Your task to perform on an android device: manage bookmarks in the chrome app Image 0: 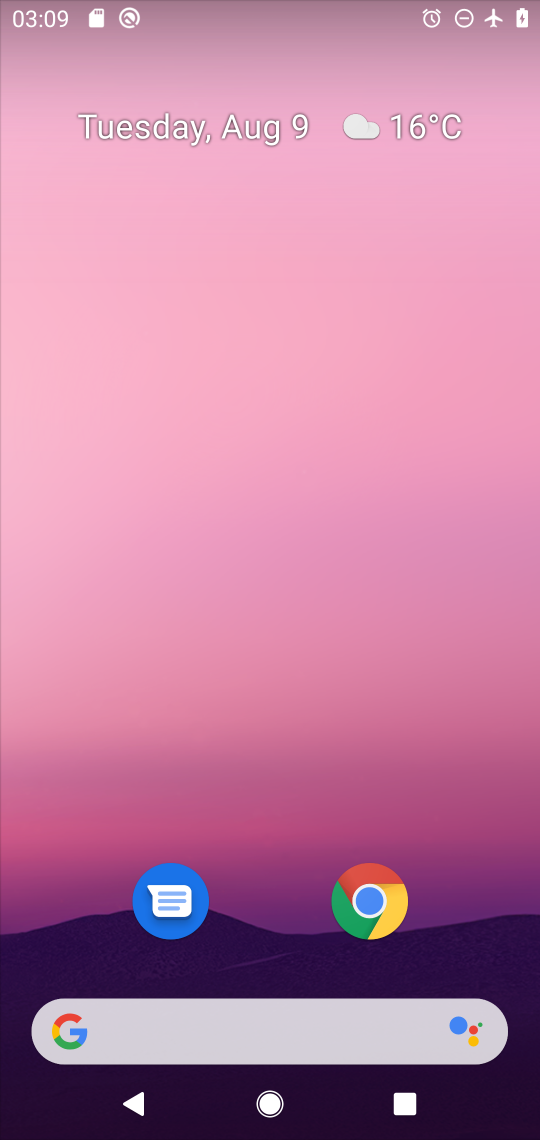
Step 0: click (369, 899)
Your task to perform on an android device: manage bookmarks in the chrome app Image 1: 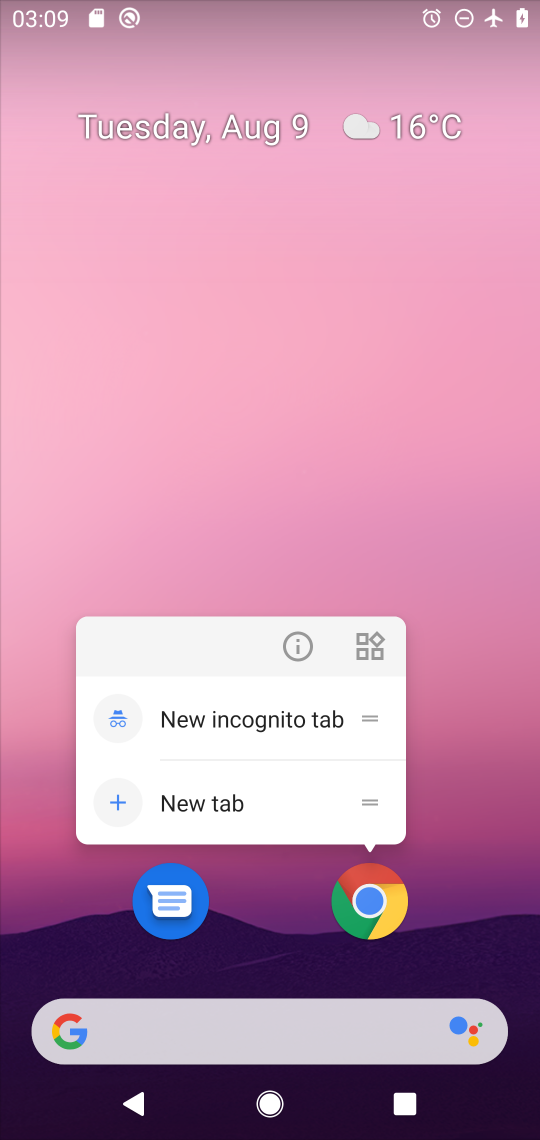
Step 1: click (369, 899)
Your task to perform on an android device: manage bookmarks in the chrome app Image 2: 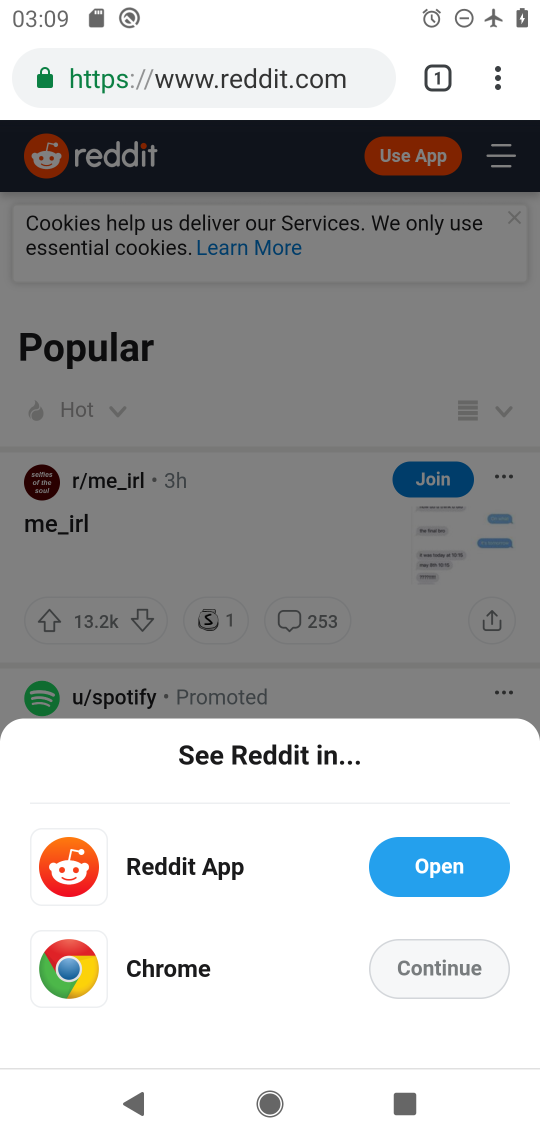
Step 2: click (492, 83)
Your task to perform on an android device: manage bookmarks in the chrome app Image 3: 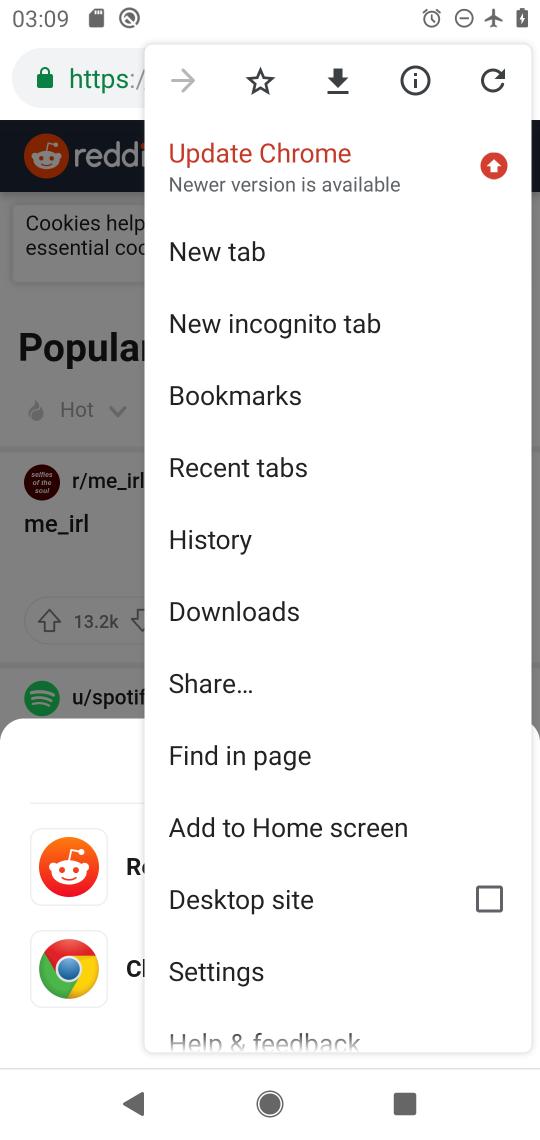
Step 3: click (233, 390)
Your task to perform on an android device: manage bookmarks in the chrome app Image 4: 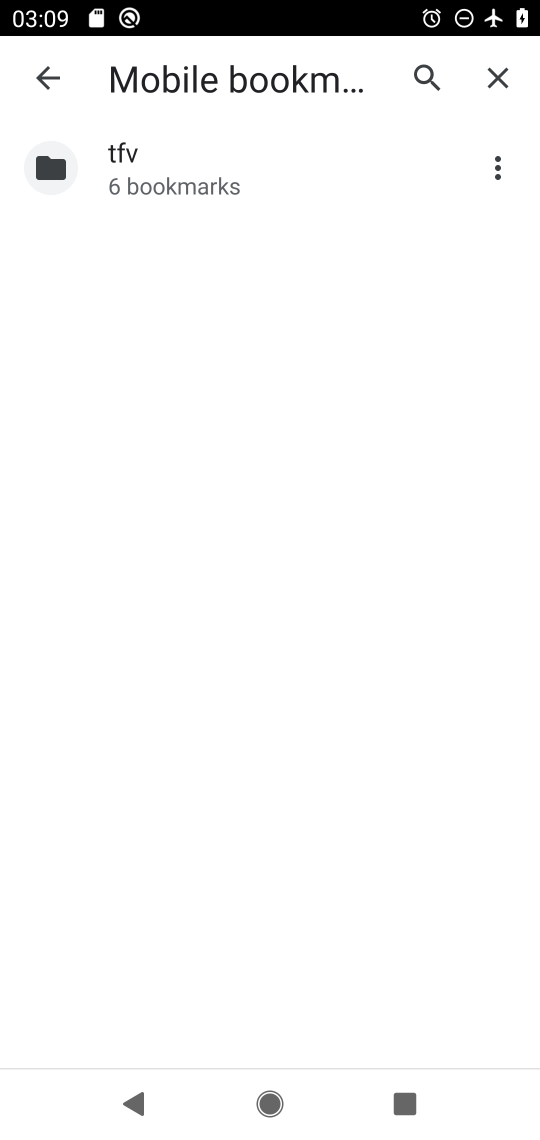
Step 4: click (145, 175)
Your task to perform on an android device: manage bookmarks in the chrome app Image 5: 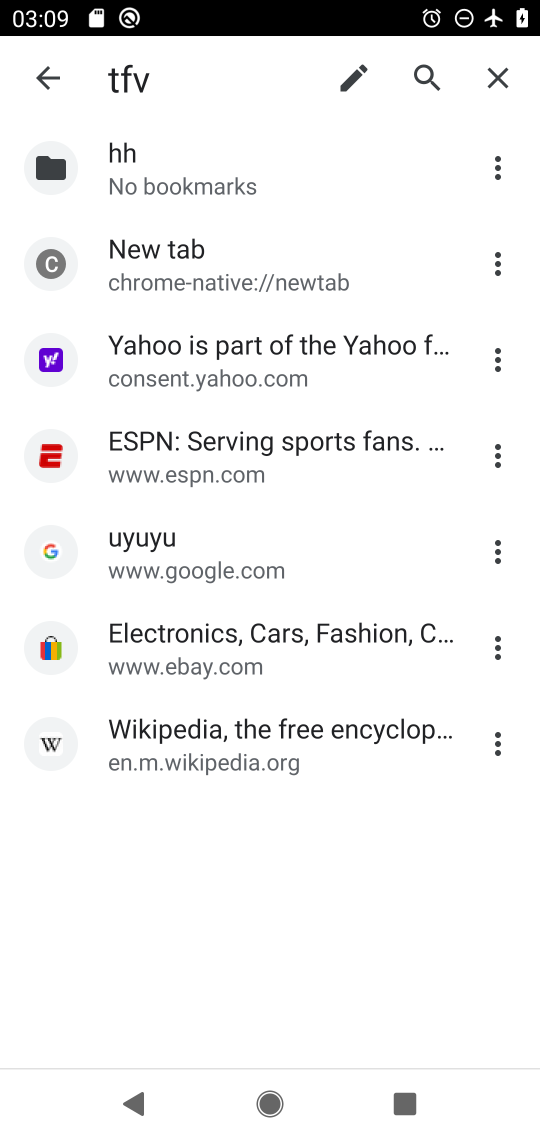
Step 5: click (164, 753)
Your task to perform on an android device: manage bookmarks in the chrome app Image 6: 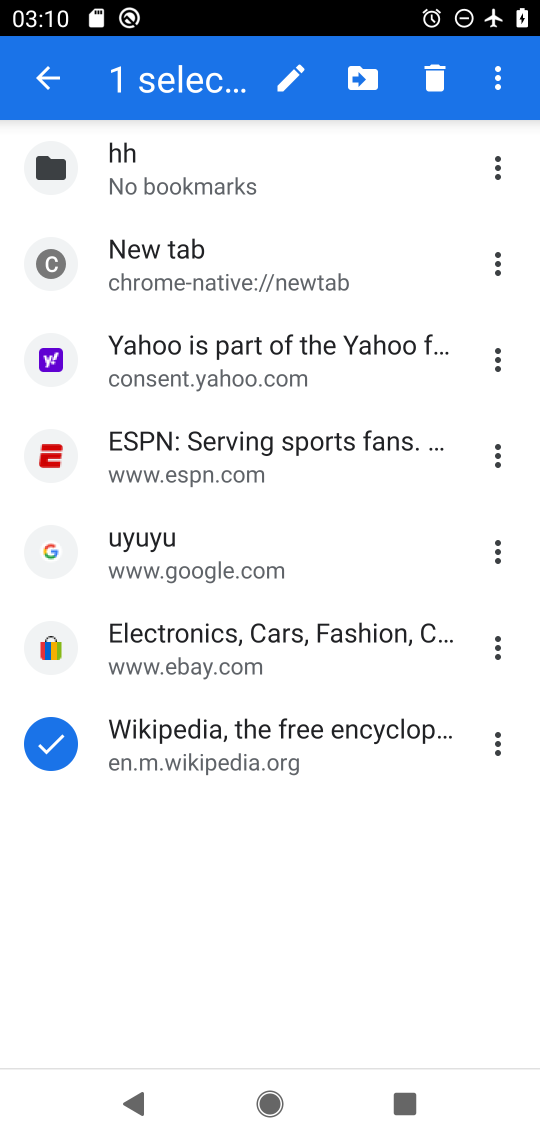
Step 6: click (365, 75)
Your task to perform on an android device: manage bookmarks in the chrome app Image 7: 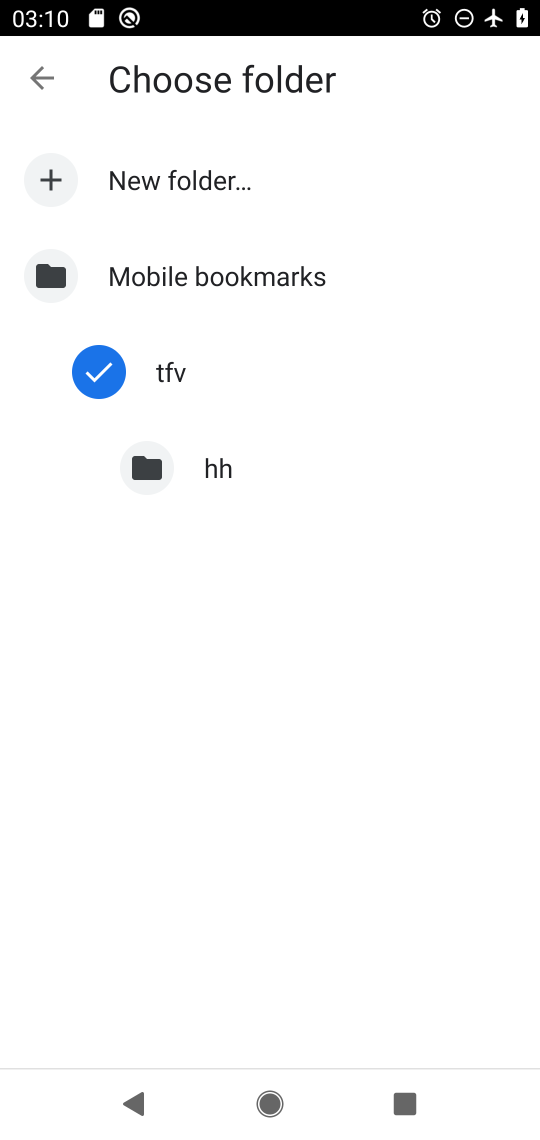
Step 7: click (214, 475)
Your task to perform on an android device: manage bookmarks in the chrome app Image 8: 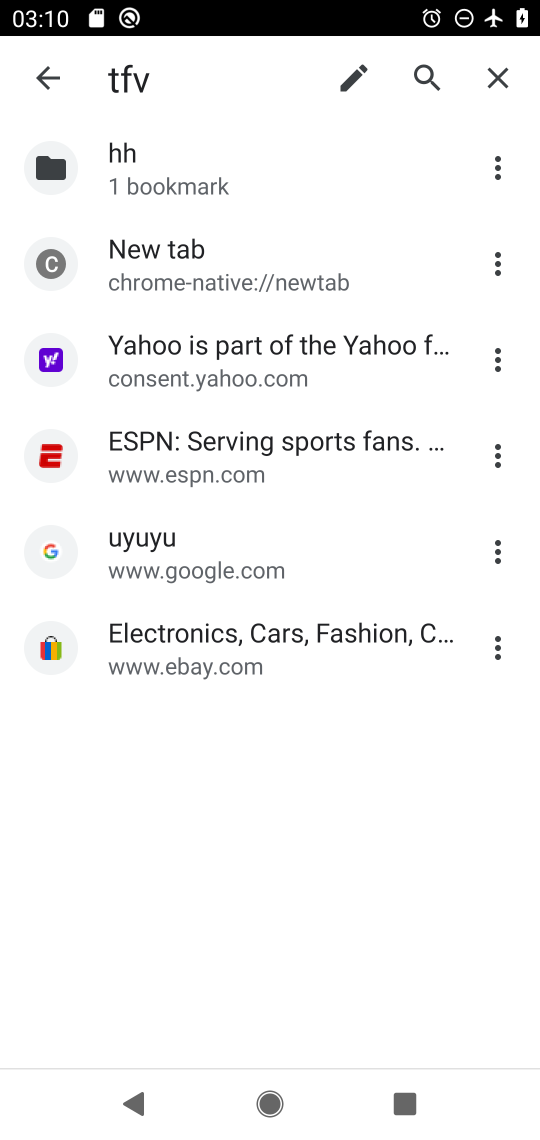
Step 8: task complete